Your task to perform on an android device: Go to Yahoo.com Image 0: 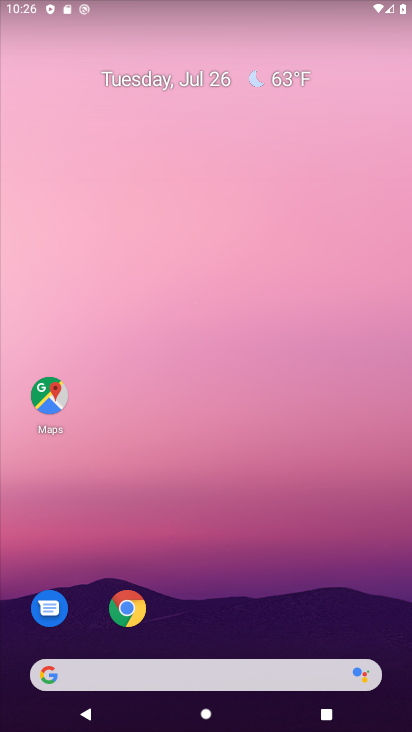
Step 0: press home button
Your task to perform on an android device: Go to Yahoo.com Image 1: 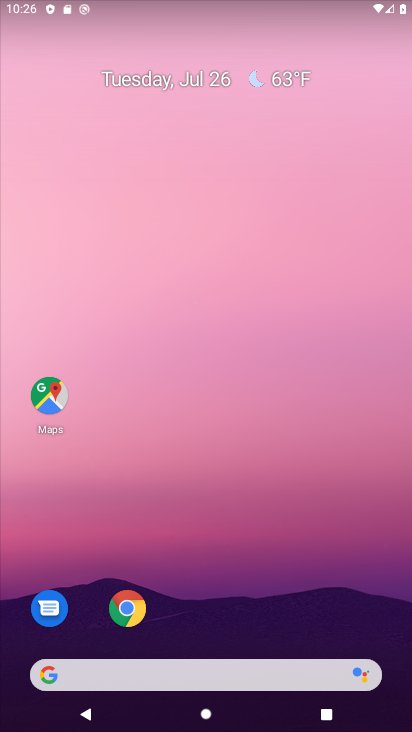
Step 1: click (46, 673)
Your task to perform on an android device: Go to Yahoo.com Image 2: 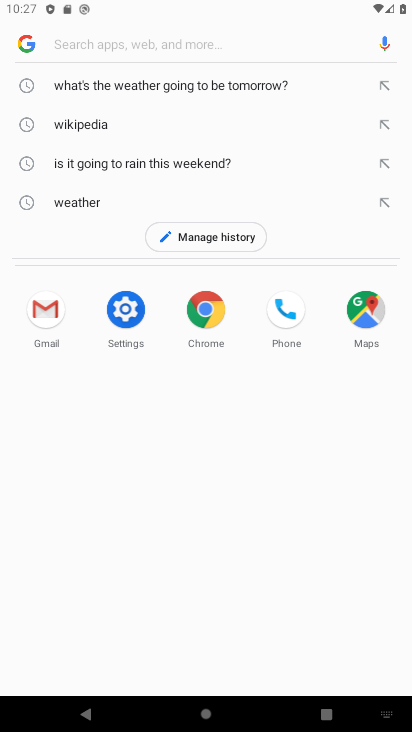
Step 2: type "Yahoo.com"
Your task to perform on an android device: Go to Yahoo.com Image 3: 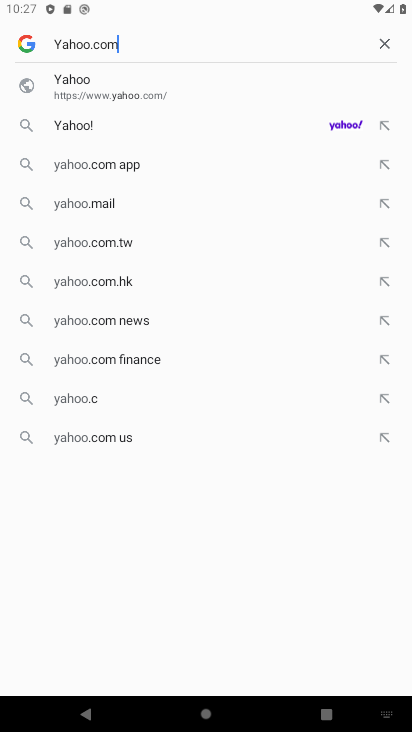
Step 3: press enter
Your task to perform on an android device: Go to Yahoo.com Image 4: 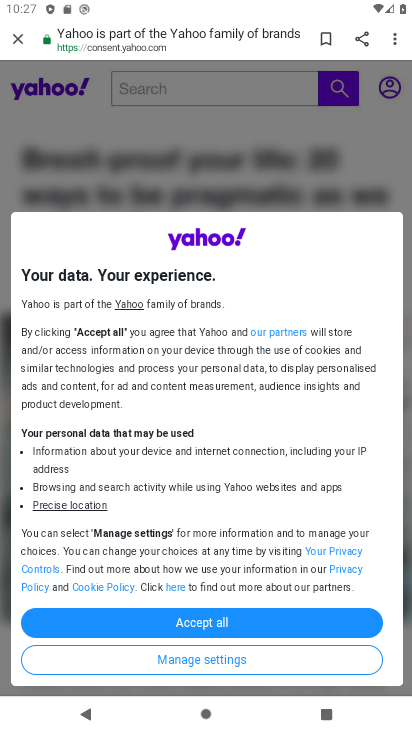
Step 4: click (131, 623)
Your task to perform on an android device: Go to Yahoo.com Image 5: 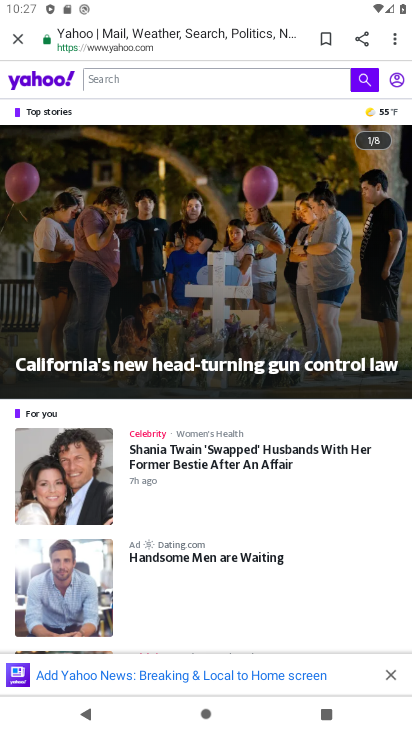
Step 5: task complete